Your task to perform on an android device: toggle priority inbox in the gmail app Image 0: 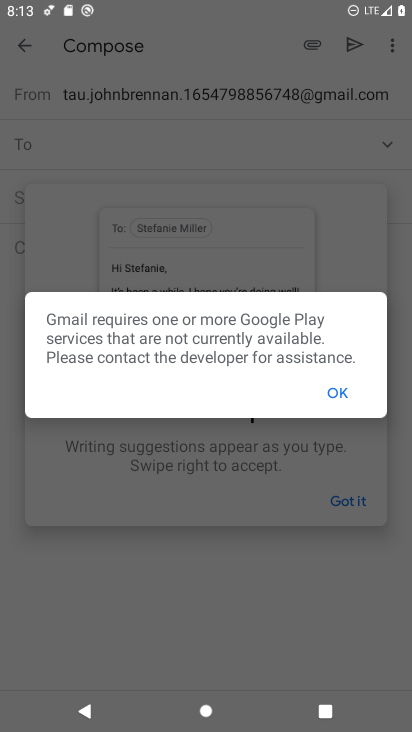
Step 0: press home button
Your task to perform on an android device: toggle priority inbox in the gmail app Image 1: 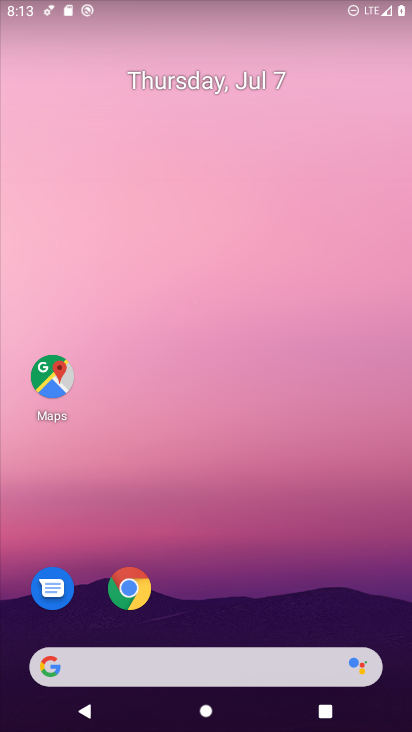
Step 1: drag from (294, 490) to (307, 191)
Your task to perform on an android device: toggle priority inbox in the gmail app Image 2: 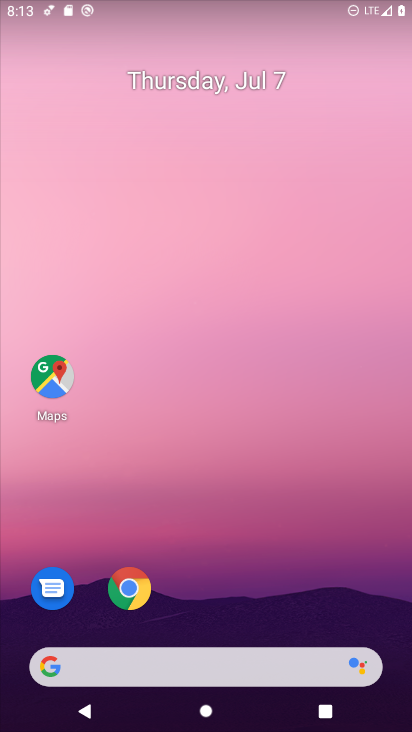
Step 2: drag from (246, 594) to (243, 106)
Your task to perform on an android device: toggle priority inbox in the gmail app Image 3: 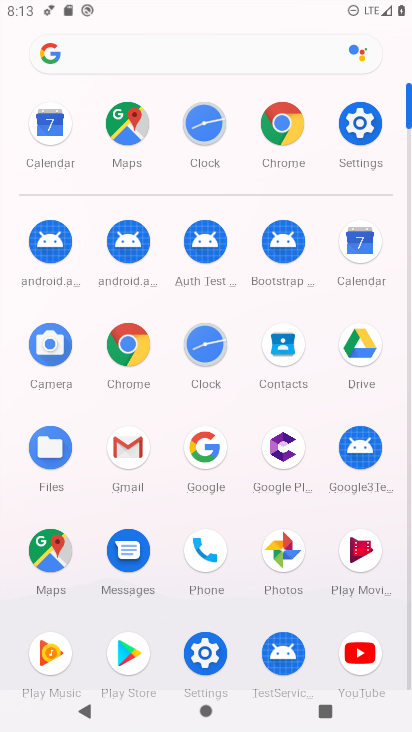
Step 3: click (122, 439)
Your task to perform on an android device: toggle priority inbox in the gmail app Image 4: 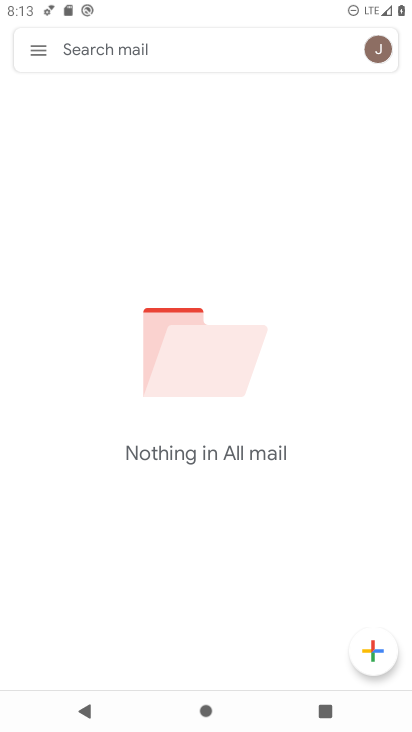
Step 4: click (37, 47)
Your task to perform on an android device: toggle priority inbox in the gmail app Image 5: 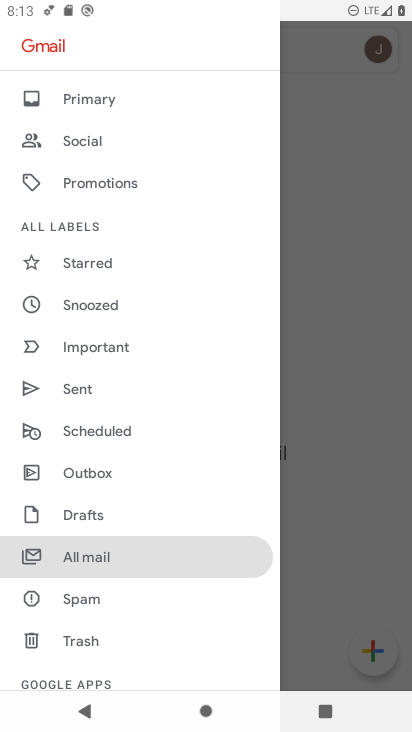
Step 5: drag from (114, 142) to (156, 540)
Your task to perform on an android device: toggle priority inbox in the gmail app Image 6: 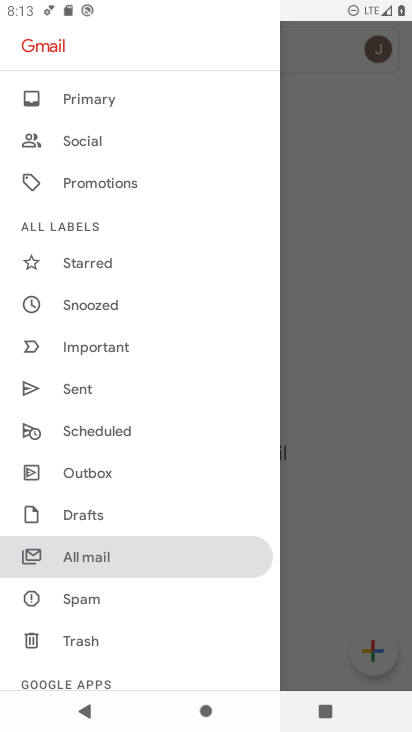
Step 6: drag from (122, 600) to (141, 248)
Your task to perform on an android device: toggle priority inbox in the gmail app Image 7: 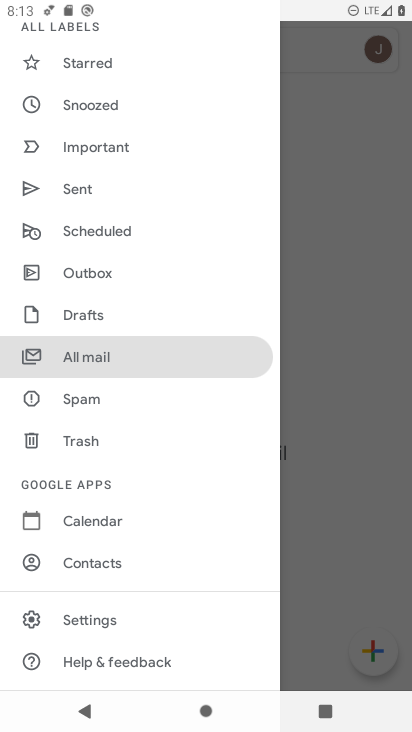
Step 7: click (93, 621)
Your task to perform on an android device: toggle priority inbox in the gmail app Image 8: 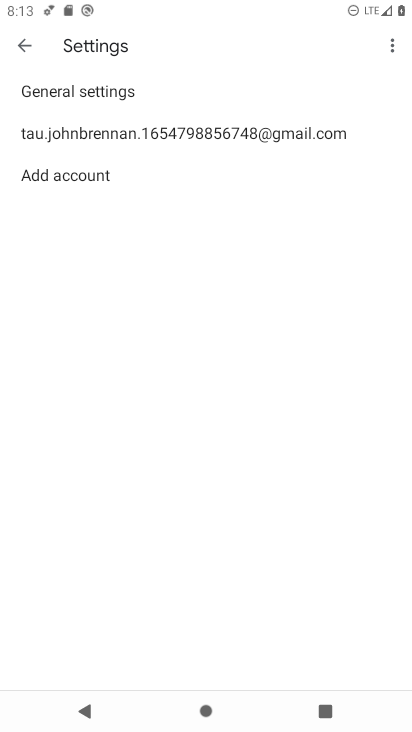
Step 8: click (119, 93)
Your task to perform on an android device: toggle priority inbox in the gmail app Image 9: 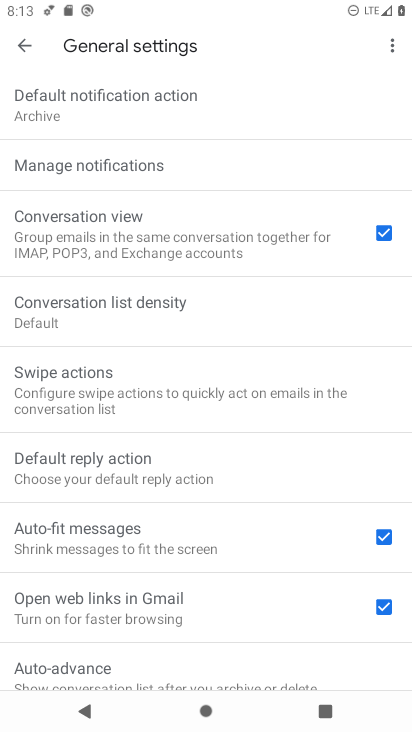
Step 9: click (20, 33)
Your task to perform on an android device: toggle priority inbox in the gmail app Image 10: 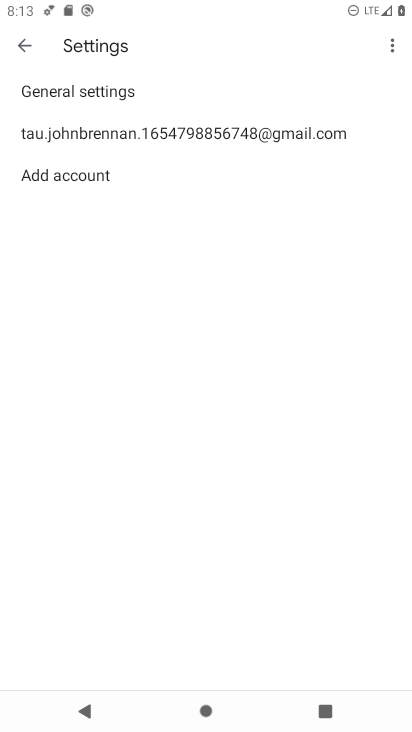
Step 10: click (93, 132)
Your task to perform on an android device: toggle priority inbox in the gmail app Image 11: 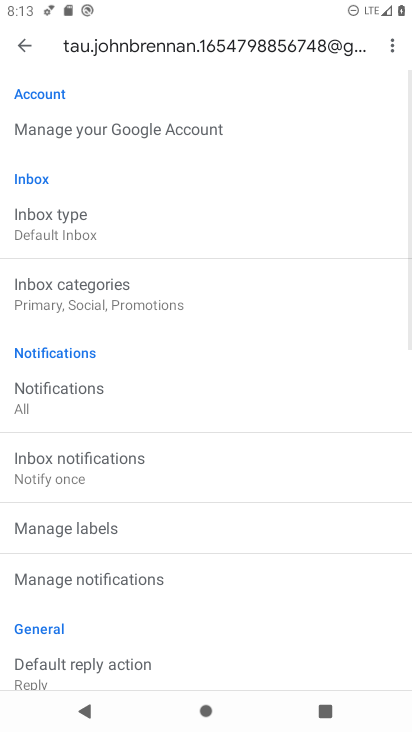
Step 11: click (72, 220)
Your task to perform on an android device: toggle priority inbox in the gmail app Image 12: 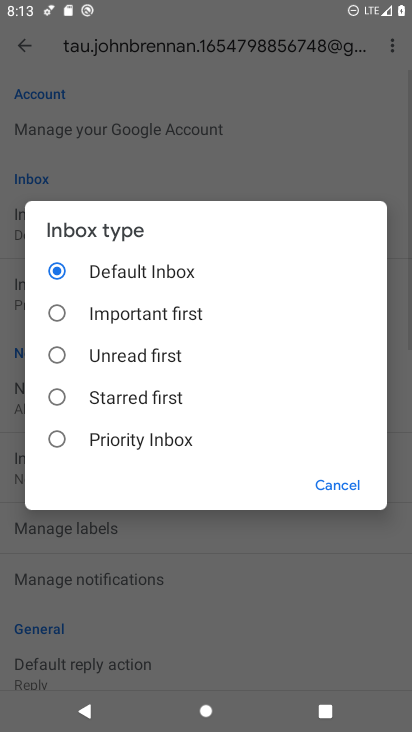
Step 12: click (109, 456)
Your task to perform on an android device: toggle priority inbox in the gmail app Image 13: 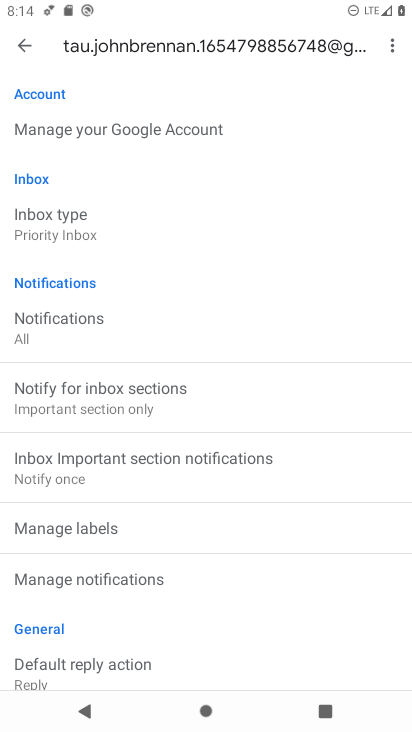
Step 13: task complete